Your task to perform on an android device: What is the recent news? Image 0: 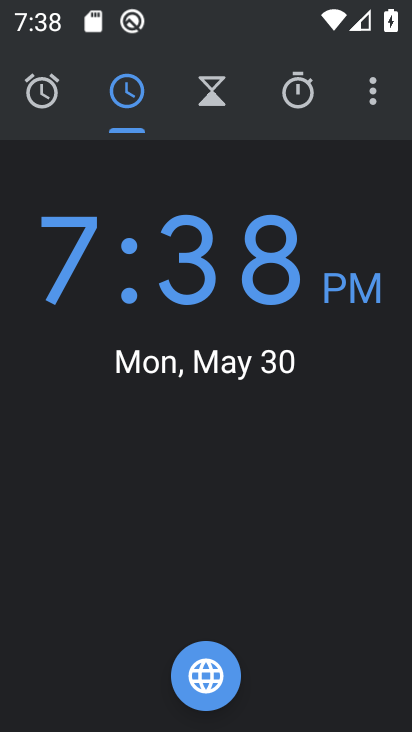
Step 0: press home button
Your task to perform on an android device: What is the recent news? Image 1: 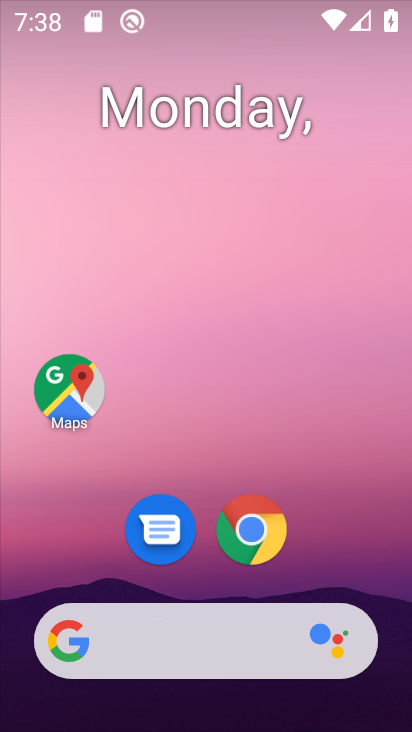
Step 1: drag from (217, 576) to (208, 168)
Your task to perform on an android device: What is the recent news? Image 2: 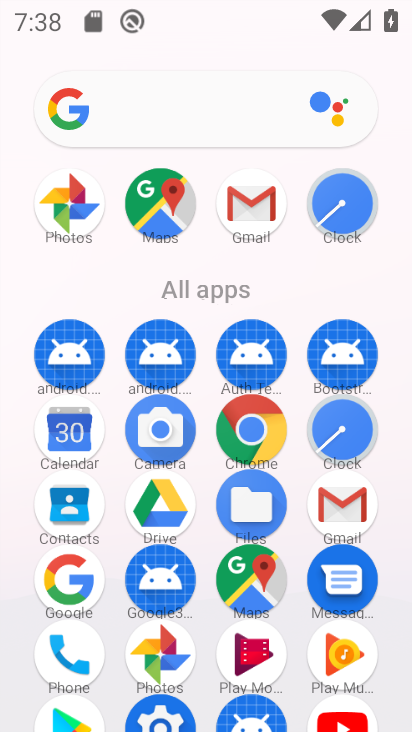
Step 2: click (80, 581)
Your task to perform on an android device: What is the recent news? Image 3: 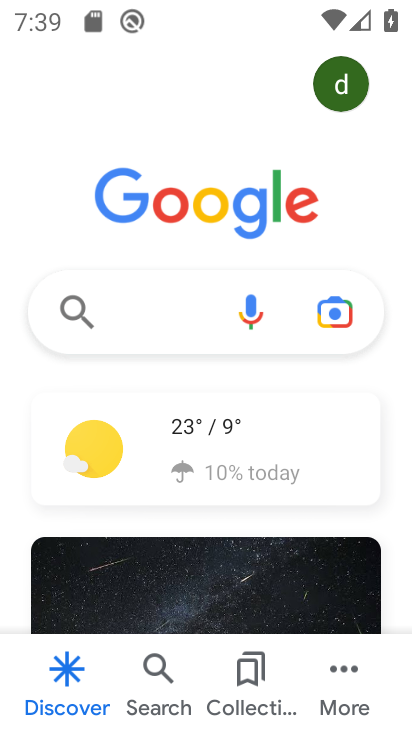
Step 3: click (169, 309)
Your task to perform on an android device: What is the recent news? Image 4: 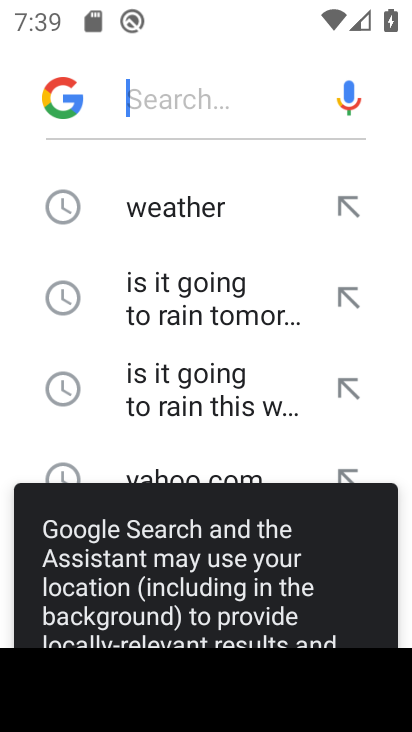
Step 4: drag from (203, 466) to (226, 136)
Your task to perform on an android device: What is the recent news? Image 5: 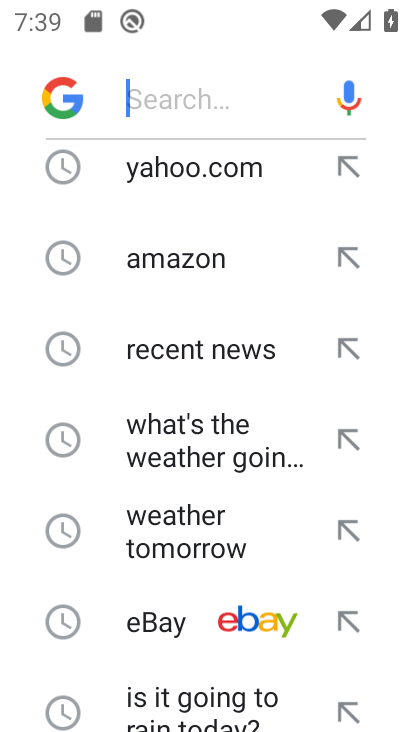
Step 5: drag from (187, 625) to (162, 175)
Your task to perform on an android device: What is the recent news? Image 6: 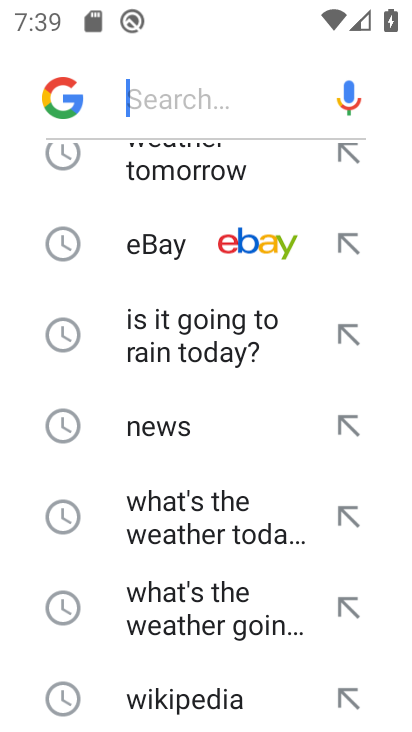
Step 6: drag from (160, 261) to (227, 690)
Your task to perform on an android device: What is the recent news? Image 7: 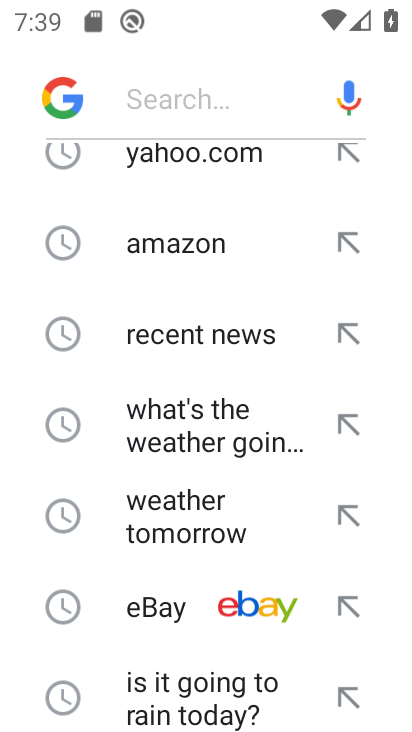
Step 7: click (170, 314)
Your task to perform on an android device: What is the recent news? Image 8: 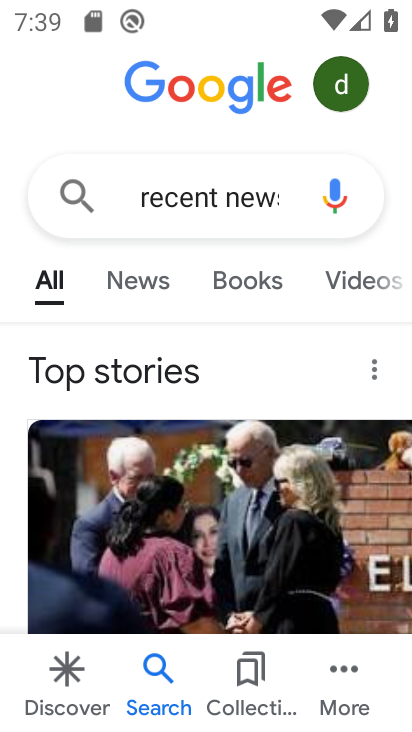
Step 8: task complete